Your task to perform on an android device: turn off sleep mode Image 0: 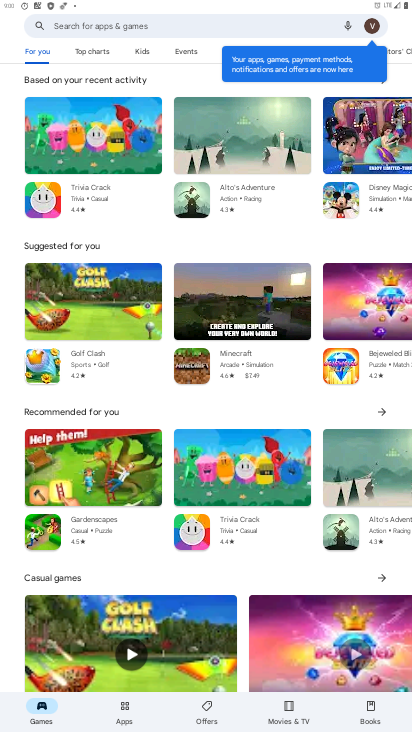
Step 0: press home button
Your task to perform on an android device: turn off sleep mode Image 1: 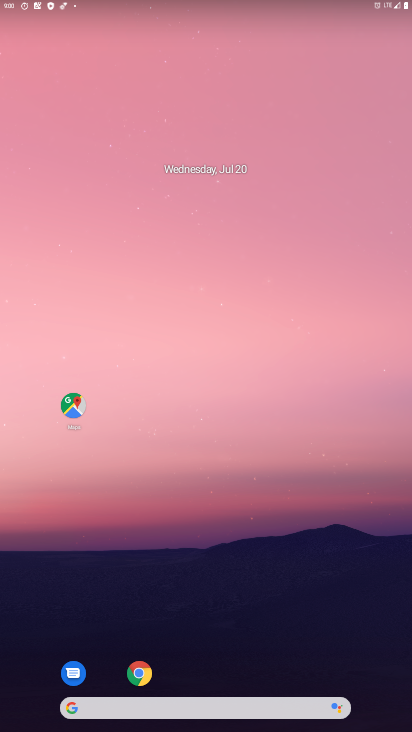
Step 1: click (182, 93)
Your task to perform on an android device: turn off sleep mode Image 2: 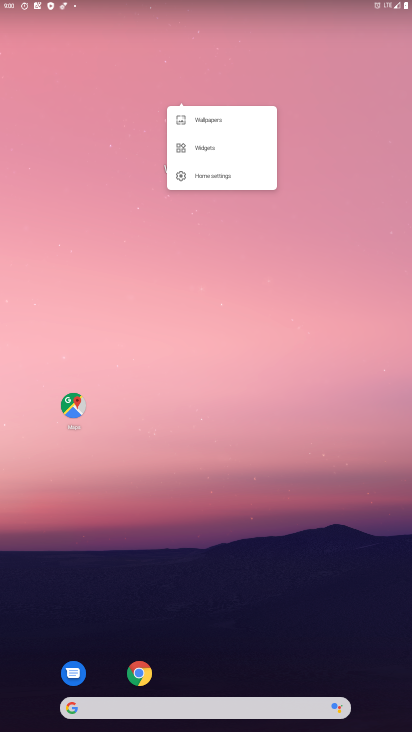
Step 2: drag from (203, 664) to (227, 293)
Your task to perform on an android device: turn off sleep mode Image 3: 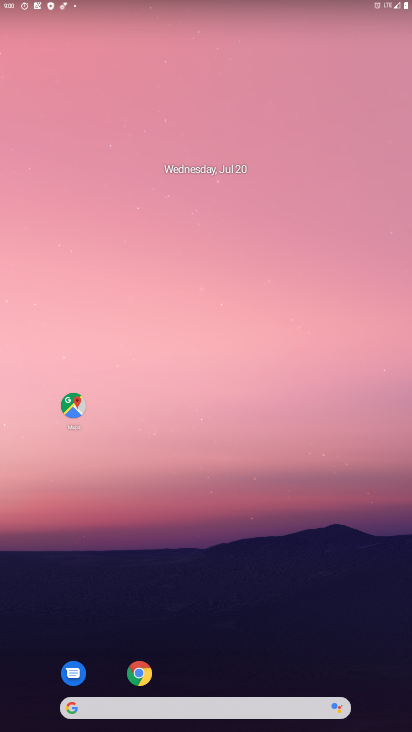
Step 3: drag from (200, 666) to (203, 103)
Your task to perform on an android device: turn off sleep mode Image 4: 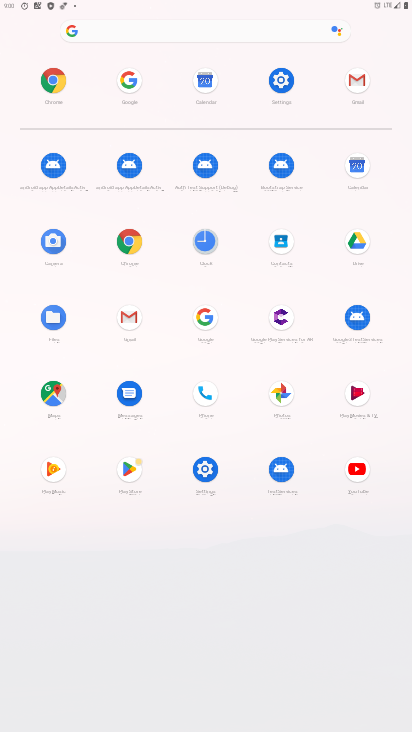
Step 4: click (283, 81)
Your task to perform on an android device: turn off sleep mode Image 5: 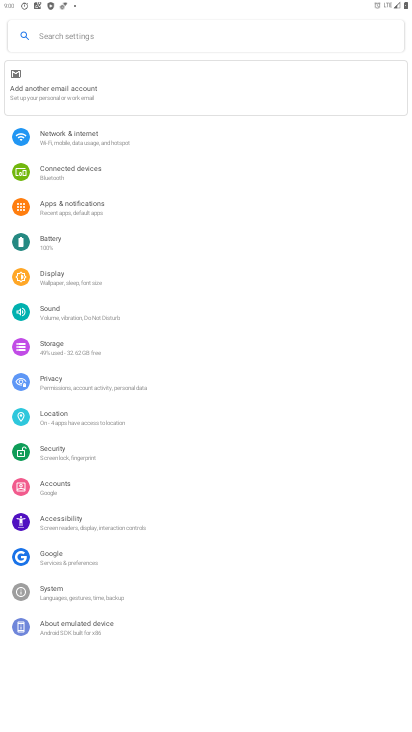
Step 5: click (98, 275)
Your task to perform on an android device: turn off sleep mode Image 6: 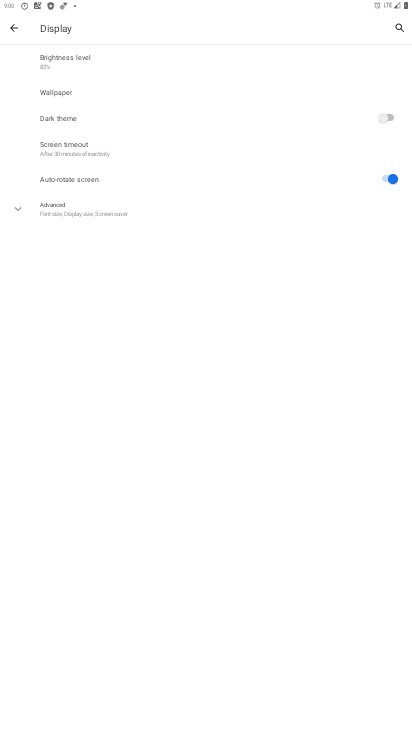
Step 6: click (98, 151)
Your task to perform on an android device: turn off sleep mode Image 7: 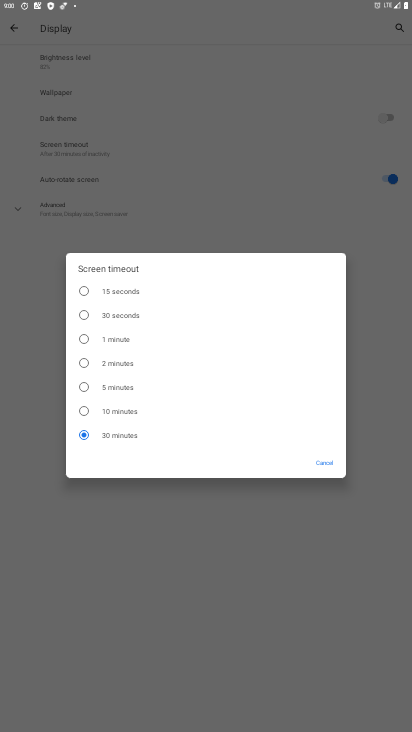
Step 7: task complete